Your task to perform on an android device: turn off data saver in the chrome app Image 0: 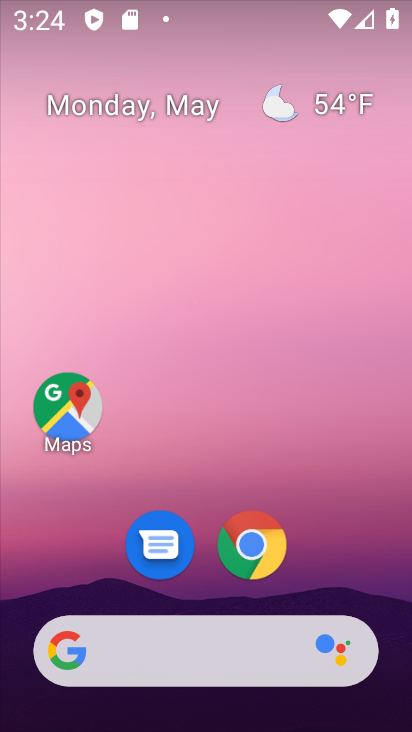
Step 0: click (247, 538)
Your task to perform on an android device: turn off data saver in the chrome app Image 1: 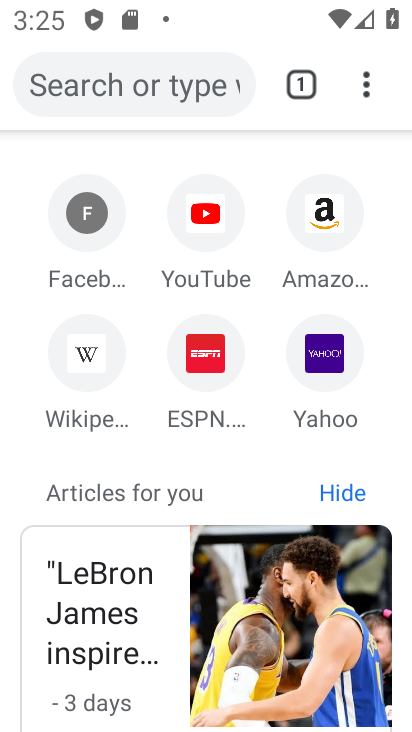
Step 1: click (370, 96)
Your task to perform on an android device: turn off data saver in the chrome app Image 2: 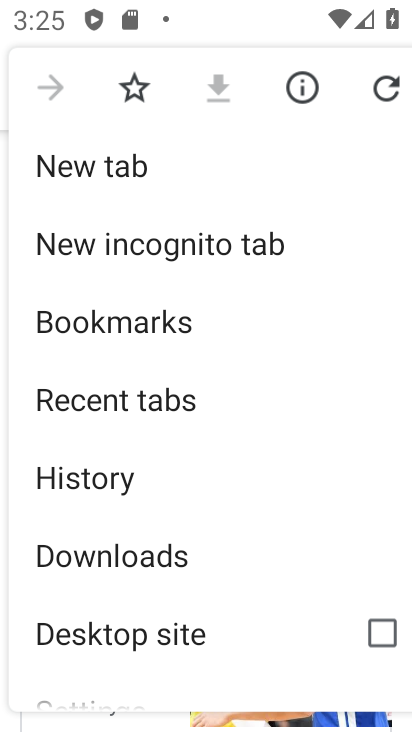
Step 2: drag from (267, 640) to (177, 320)
Your task to perform on an android device: turn off data saver in the chrome app Image 3: 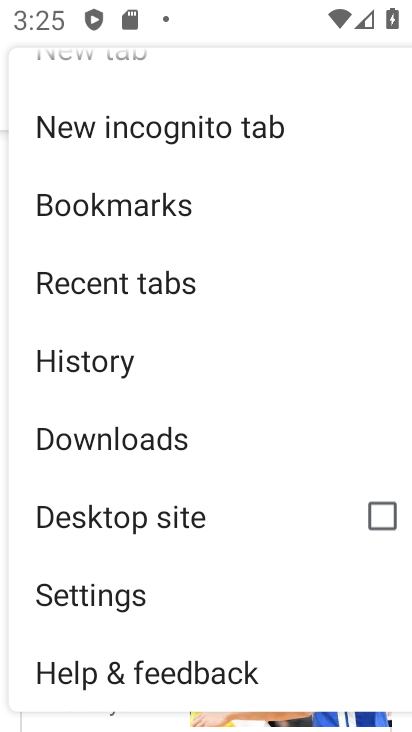
Step 3: click (109, 590)
Your task to perform on an android device: turn off data saver in the chrome app Image 4: 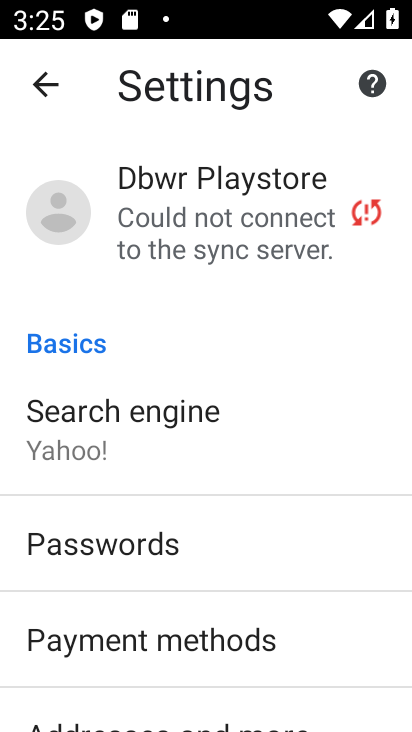
Step 4: drag from (305, 657) to (258, 316)
Your task to perform on an android device: turn off data saver in the chrome app Image 5: 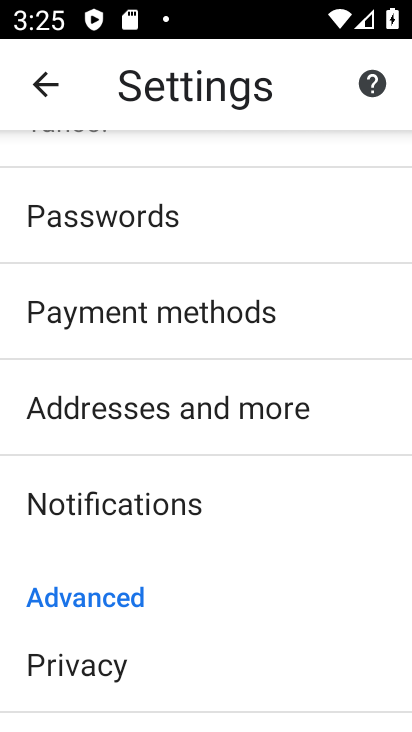
Step 5: drag from (278, 623) to (275, 221)
Your task to perform on an android device: turn off data saver in the chrome app Image 6: 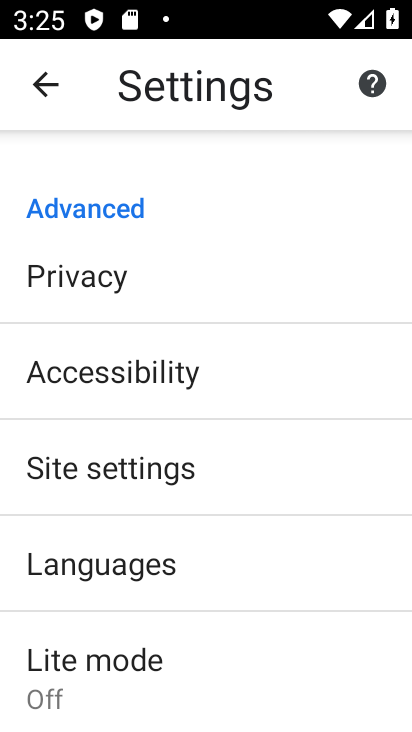
Step 6: click (120, 660)
Your task to perform on an android device: turn off data saver in the chrome app Image 7: 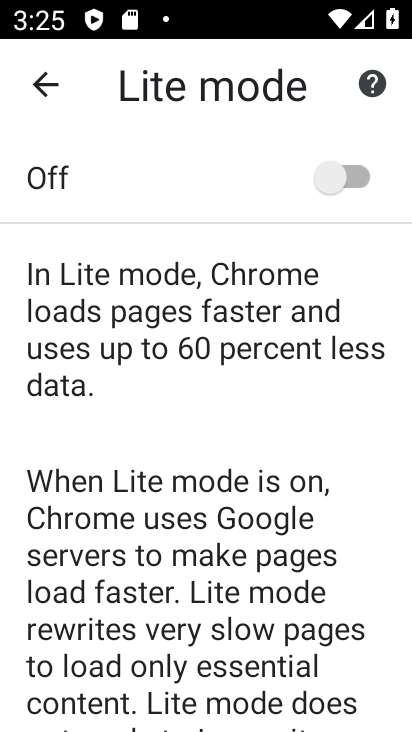
Step 7: task complete